Your task to perform on an android device: turn off notifications settings in the gmail app Image 0: 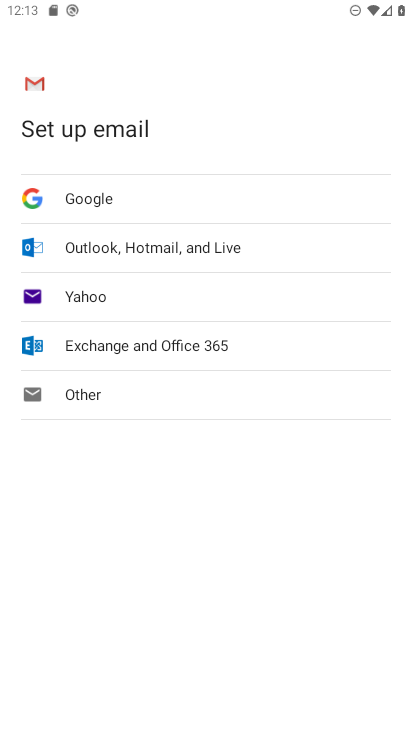
Step 0: press home button
Your task to perform on an android device: turn off notifications settings in the gmail app Image 1: 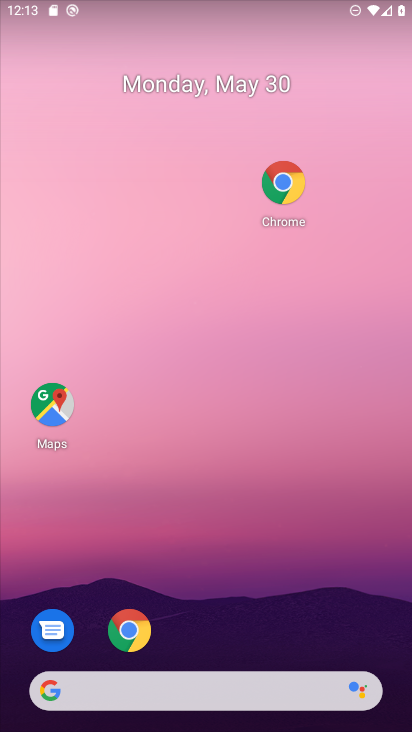
Step 1: drag from (229, 680) to (148, 102)
Your task to perform on an android device: turn off notifications settings in the gmail app Image 2: 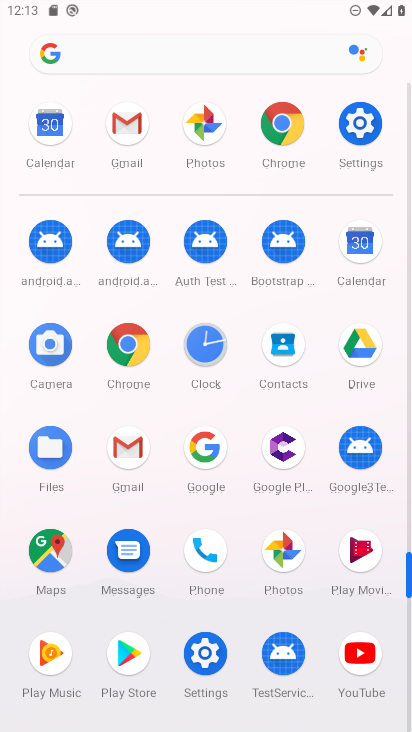
Step 2: click (115, 459)
Your task to perform on an android device: turn off notifications settings in the gmail app Image 3: 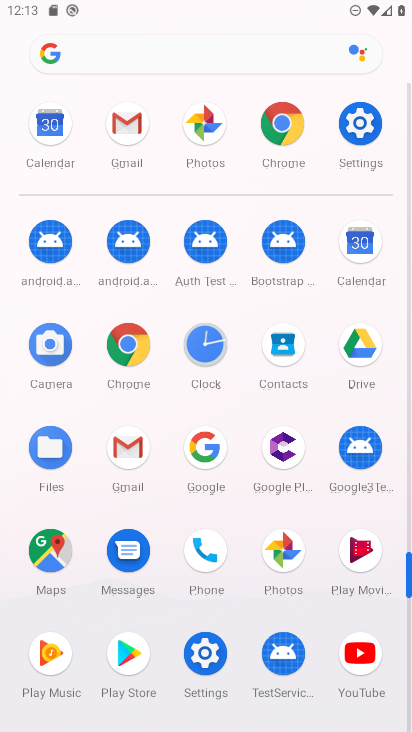
Step 3: click (122, 450)
Your task to perform on an android device: turn off notifications settings in the gmail app Image 4: 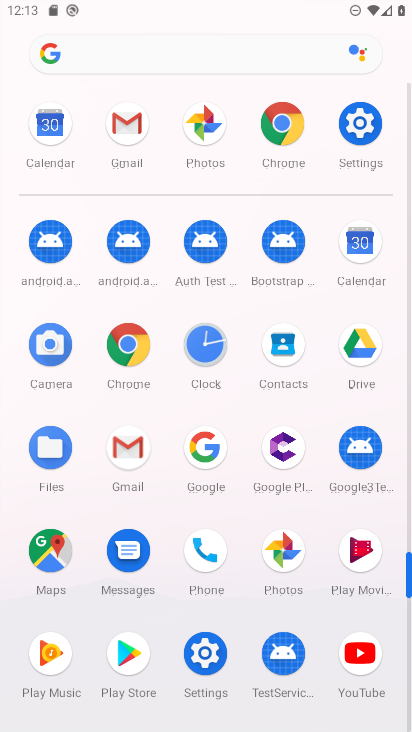
Step 4: click (125, 447)
Your task to perform on an android device: turn off notifications settings in the gmail app Image 5: 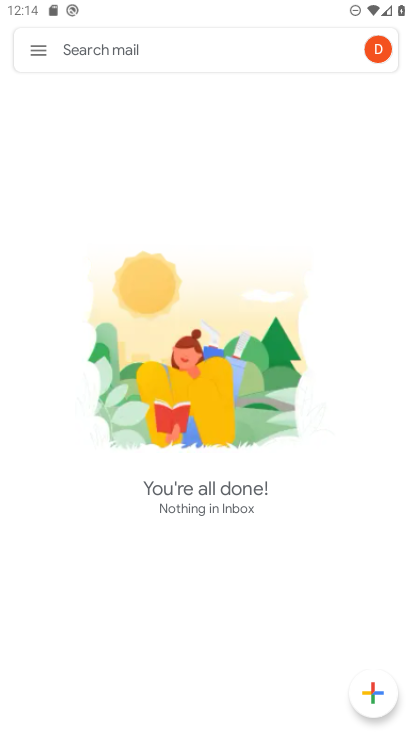
Step 5: click (39, 47)
Your task to perform on an android device: turn off notifications settings in the gmail app Image 6: 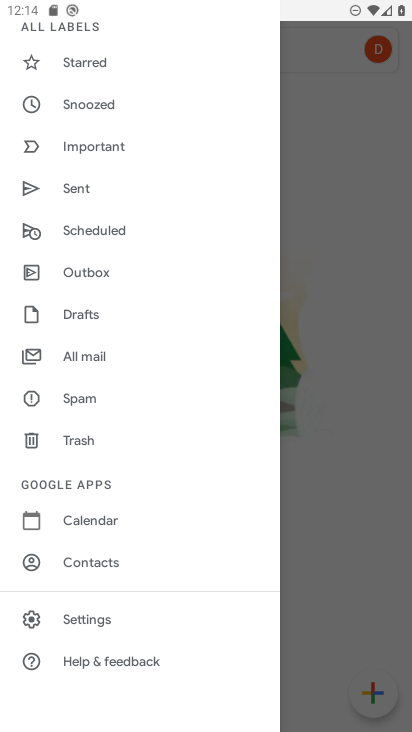
Step 6: click (69, 606)
Your task to perform on an android device: turn off notifications settings in the gmail app Image 7: 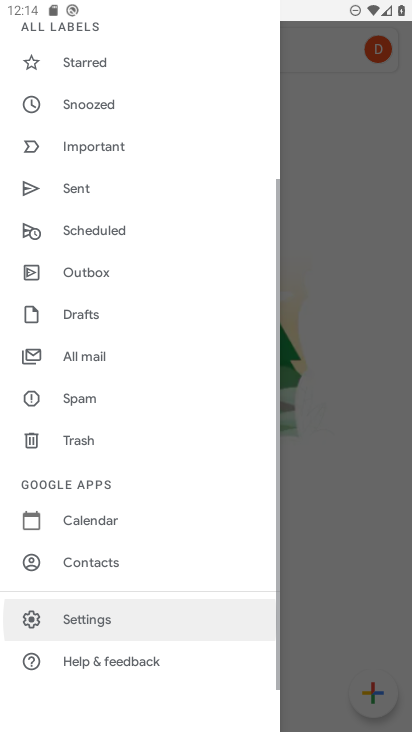
Step 7: click (70, 606)
Your task to perform on an android device: turn off notifications settings in the gmail app Image 8: 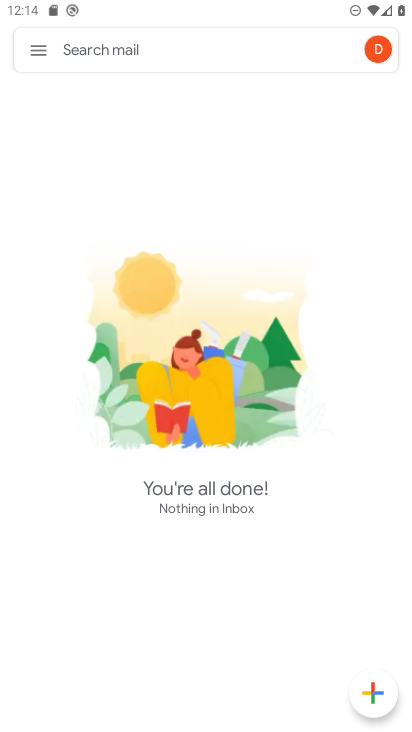
Step 8: click (81, 608)
Your task to perform on an android device: turn off notifications settings in the gmail app Image 9: 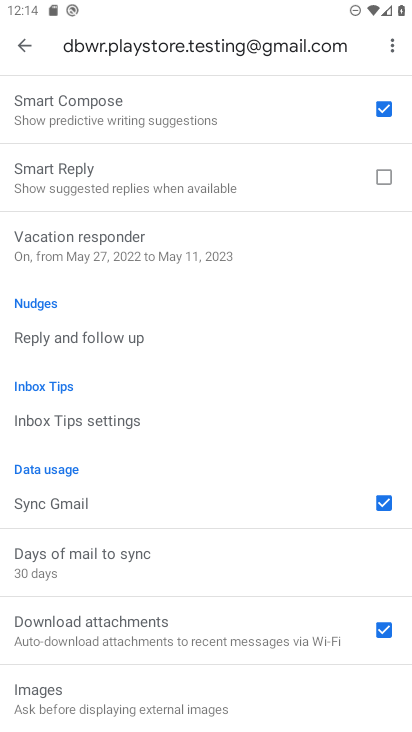
Step 9: drag from (149, 439) to (174, 265)
Your task to perform on an android device: turn off notifications settings in the gmail app Image 10: 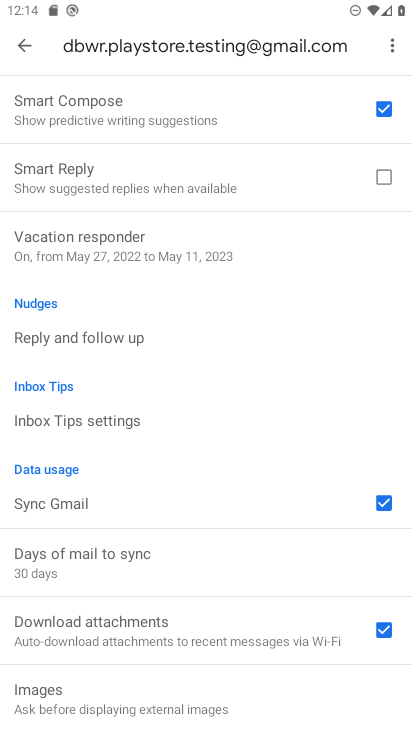
Step 10: drag from (169, 194) to (205, 544)
Your task to perform on an android device: turn off notifications settings in the gmail app Image 11: 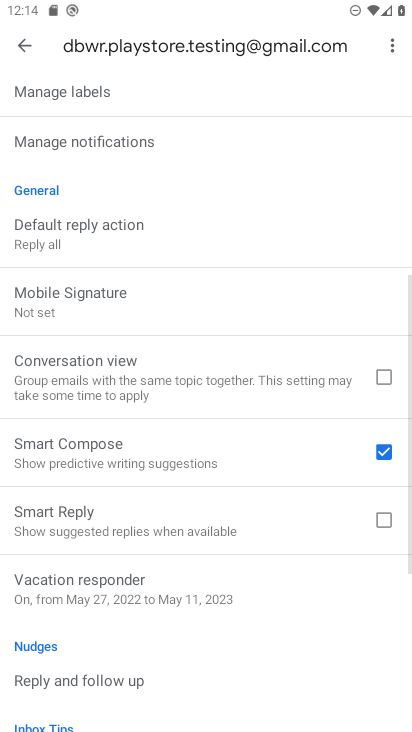
Step 11: drag from (170, 300) to (192, 695)
Your task to perform on an android device: turn off notifications settings in the gmail app Image 12: 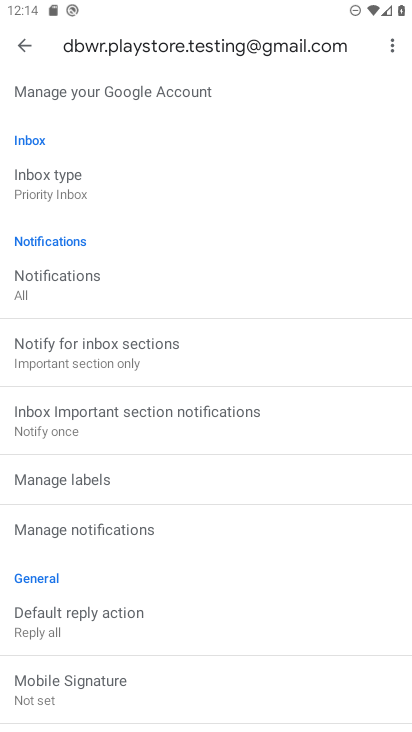
Step 12: drag from (237, 476) to (234, 167)
Your task to perform on an android device: turn off notifications settings in the gmail app Image 13: 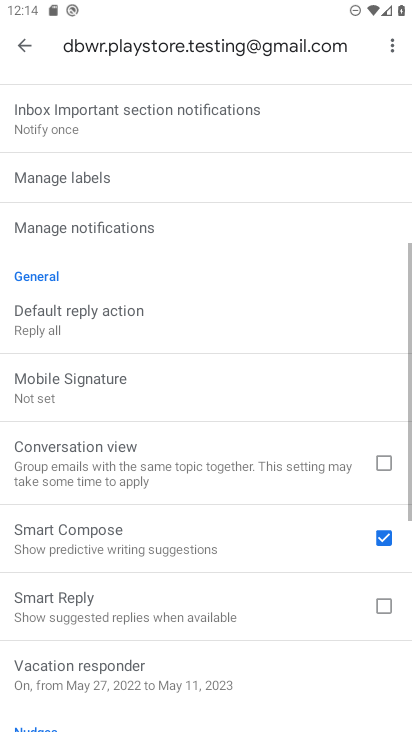
Step 13: drag from (199, 495) to (167, 160)
Your task to perform on an android device: turn off notifications settings in the gmail app Image 14: 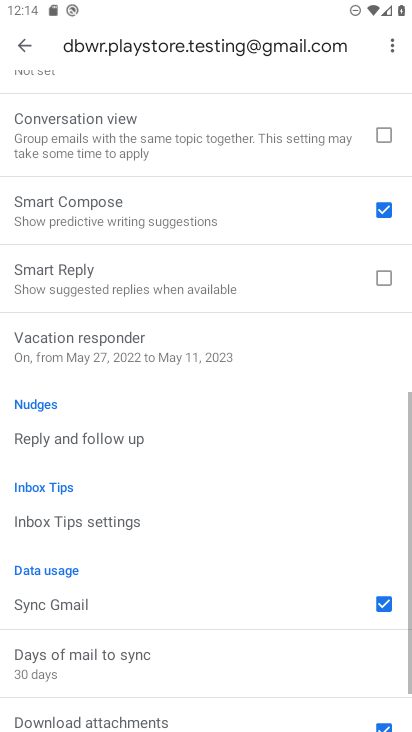
Step 14: drag from (228, 620) to (176, 258)
Your task to perform on an android device: turn off notifications settings in the gmail app Image 15: 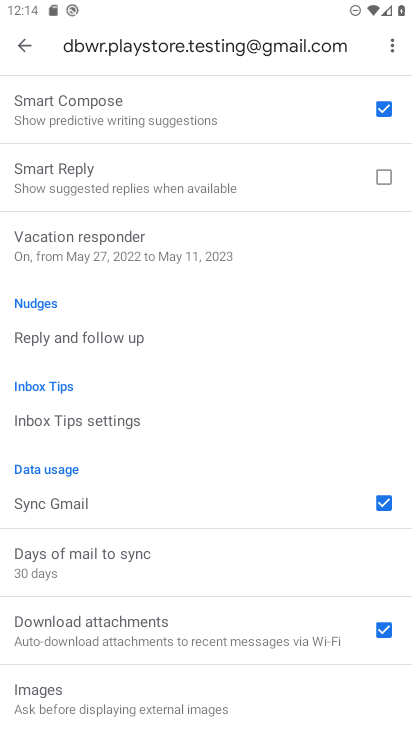
Step 15: drag from (110, 181) to (143, 551)
Your task to perform on an android device: turn off notifications settings in the gmail app Image 16: 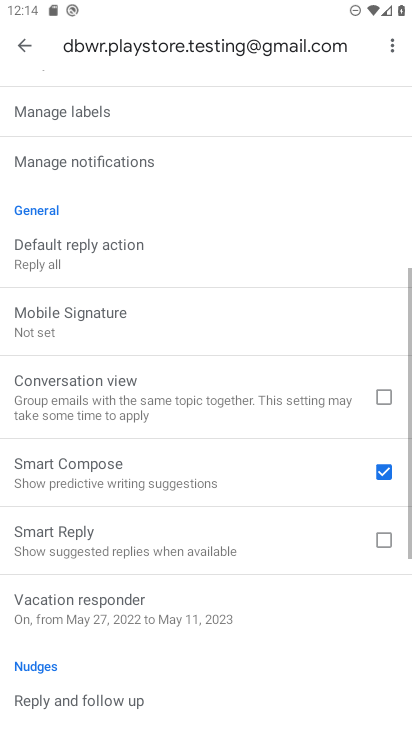
Step 16: drag from (146, 298) to (128, 611)
Your task to perform on an android device: turn off notifications settings in the gmail app Image 17: 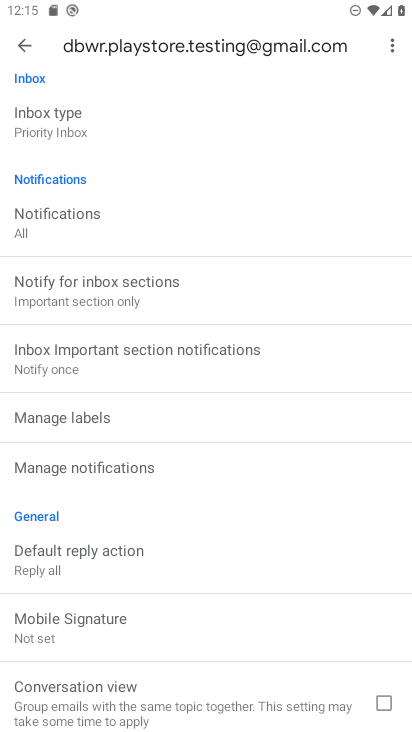
Step 17: drag from (94, 235) to (75, 610)
Your task to perform on an android device: turn off notifications settings in the gmail app Image 18: 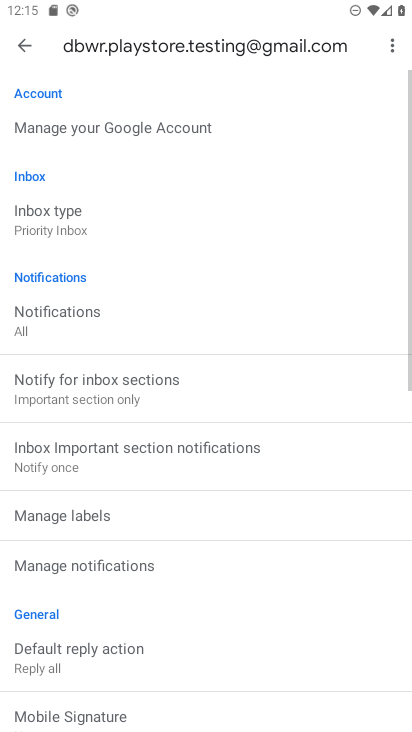
Step 18: click (49, 314)
Your task to perform on an android device: turn off notifications settings in the gmail app Image 19: 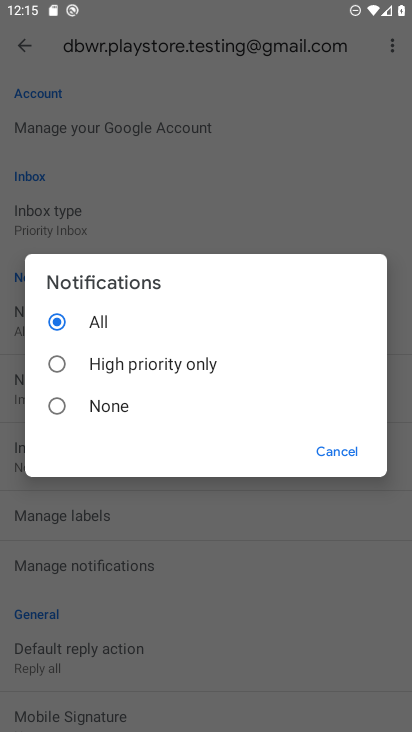
Step 19: click (60, 410)
Your task to perform on an android device: turn off notifications settings in the gmail app Image 20: 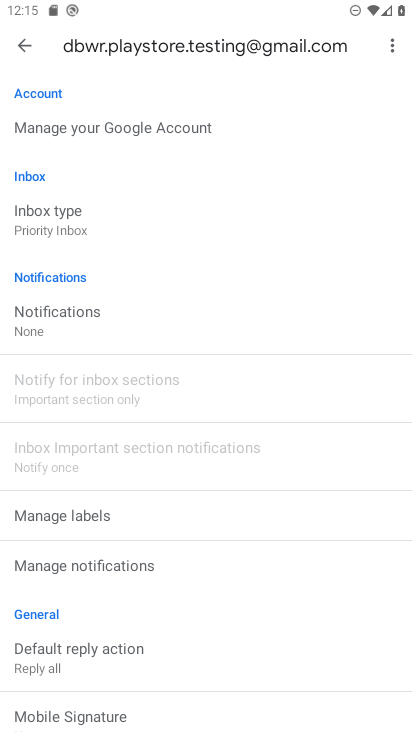
Step 20: task complete